Your task to perform on an android device: Go to Google Image 0: 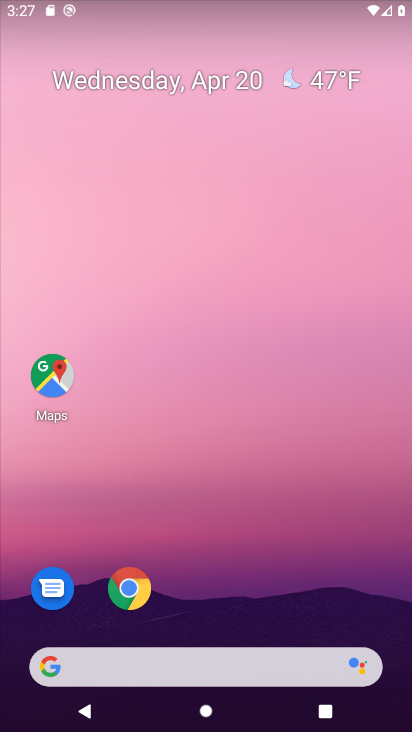
Step 0: drag from (219, 591) to (344, 15)
Your task to perform on an android device: Go to Google Image 1: 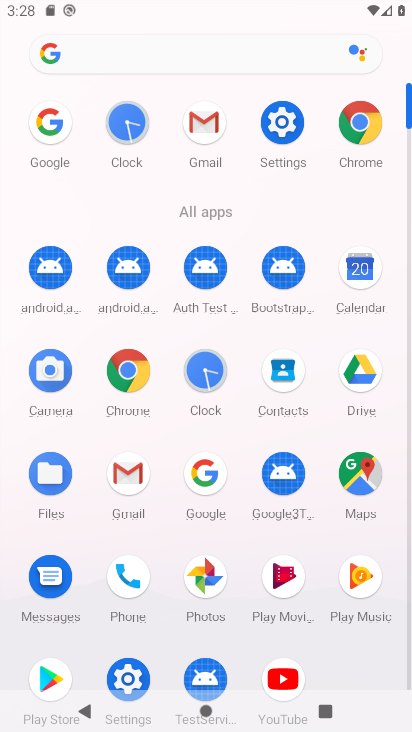
Step 1: click (198, 482)
Your task to perform on an android device: Go to Google Image 2: 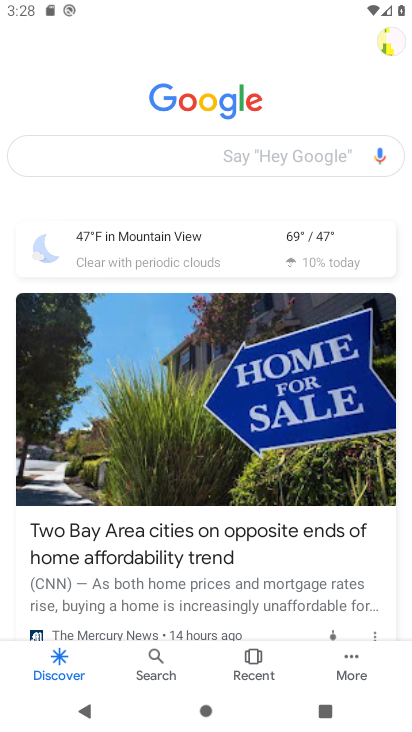
Step 2: task complete